Your task to perform on an android device: open chrome and create a bookmark for the current page Image 0: 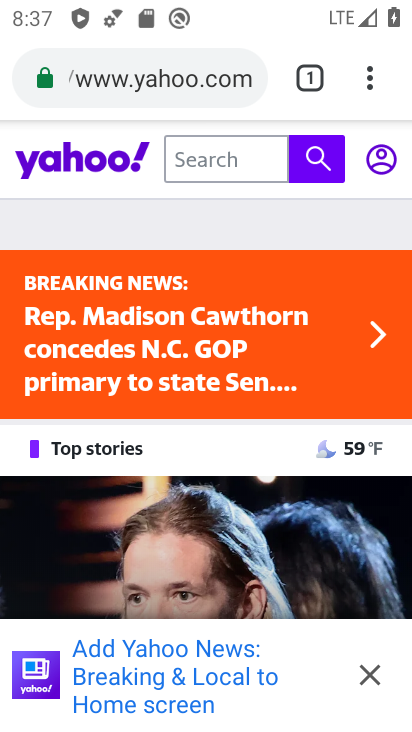
Step 0: drag from (206, 589) to (265, 111)
Your task to perform on an android device: open chrome and create a bookmark for the current page Image 1: 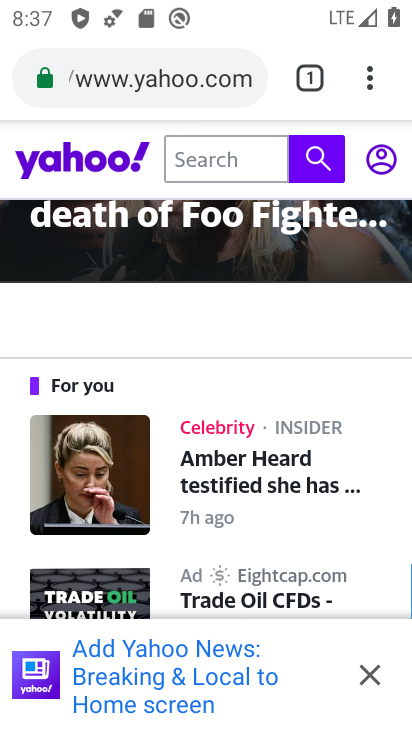
Step 1: click (365, 78)
Your task to perform on an android device: open chrome and create a bookmark for the current page Image 2: 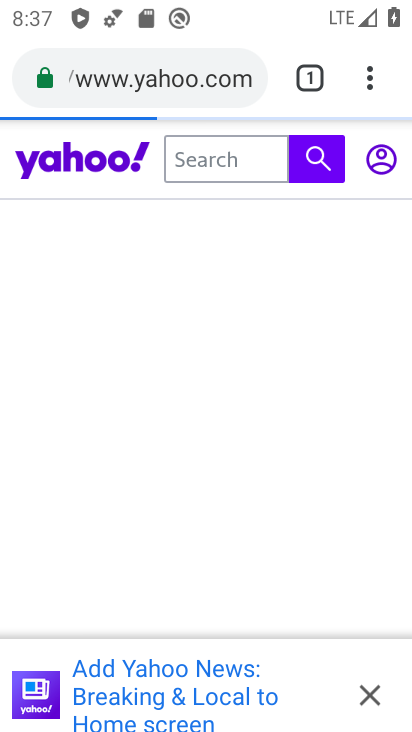
Step 2: click (363, 64)
Your task to perform on an android device: open chrome and create a bookmark for the current page Image 3: 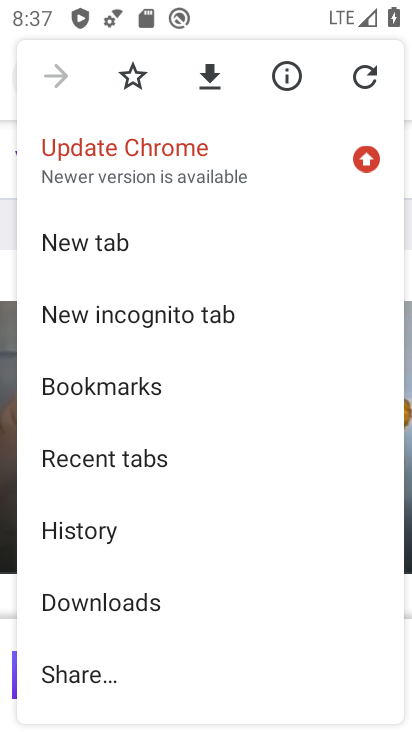
Step 3: click (138, 84)
Your task to perform on an android device: open chrome and create a bookmark for the current page Image 4: 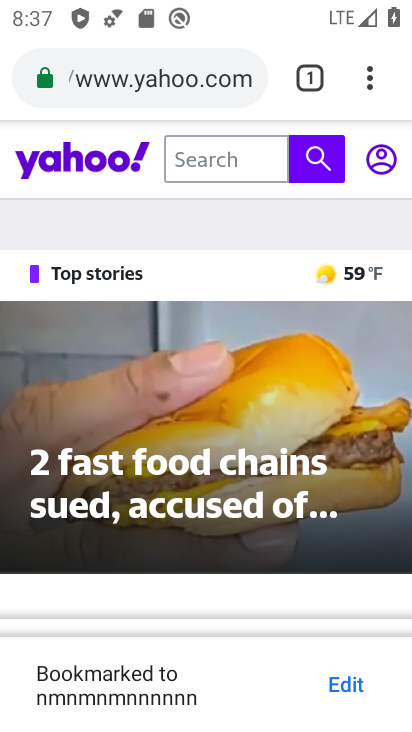
Step 4: task complete